Your task to perform on an android device: Go to network settings Image 0: 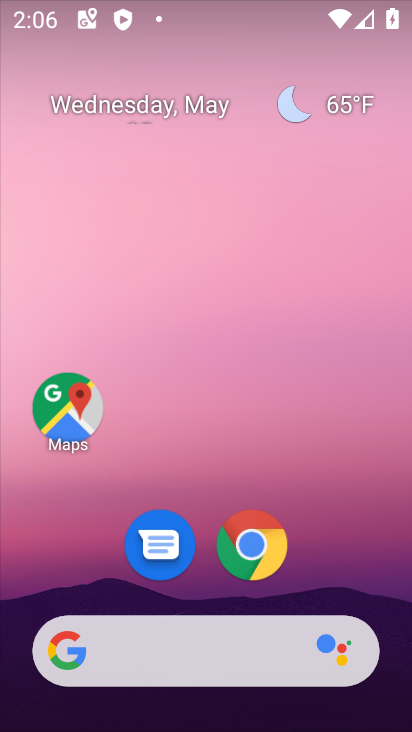
Step 0: drag from (328, 439) to (226, 53)
Your task to perform on an android device: Go to network settings Image 1: 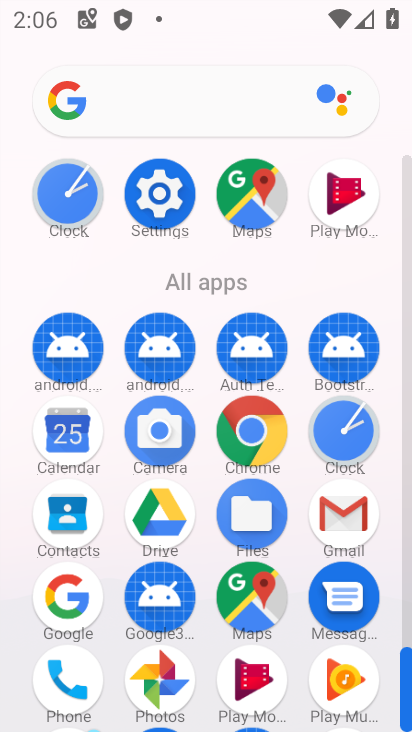
Step 1: click (167, 199)
Your task to perform on an android device: Go to network settings Image 2: 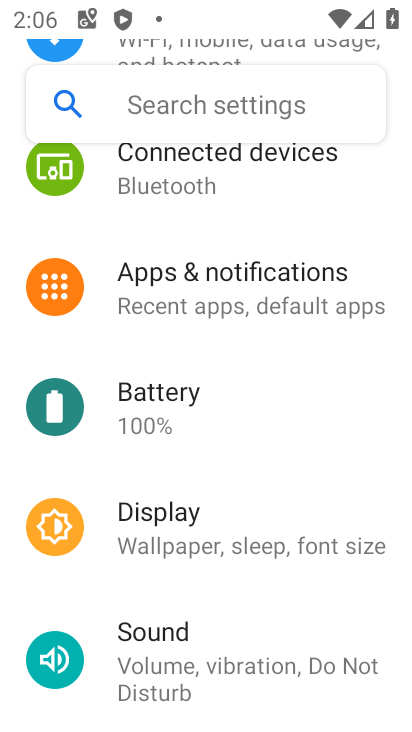
Step 2: drag from (272, 250) to (287, 670)
Your task to perform on an android device: Go to network settings Image 3: 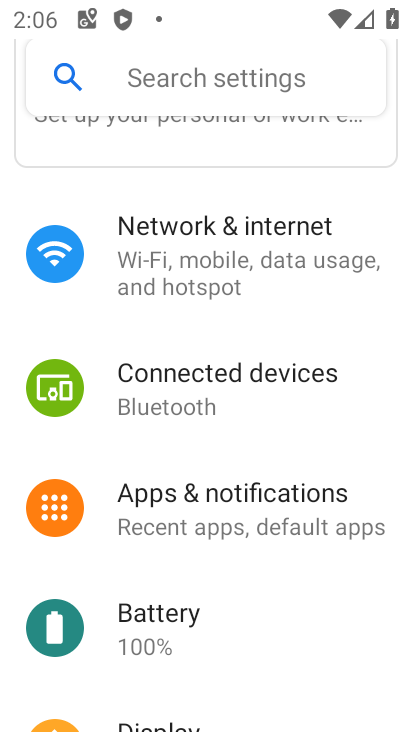
Step 3: click (225, 277)
Your task to perform on an android device: Go to network settings Image 4: 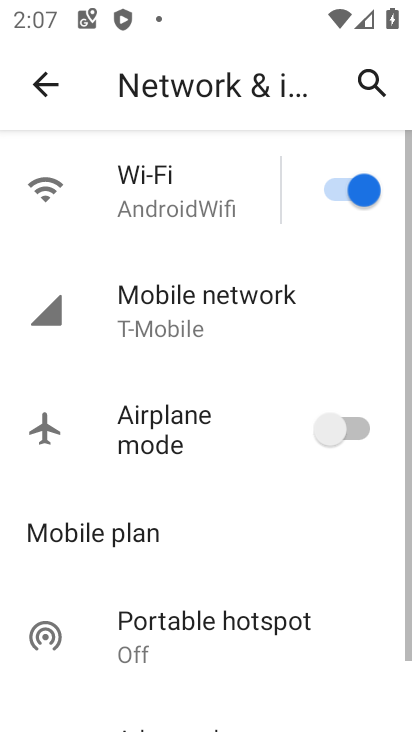
Step 4: task complete